Your task to perform on an android device: Open display settings Image 0: 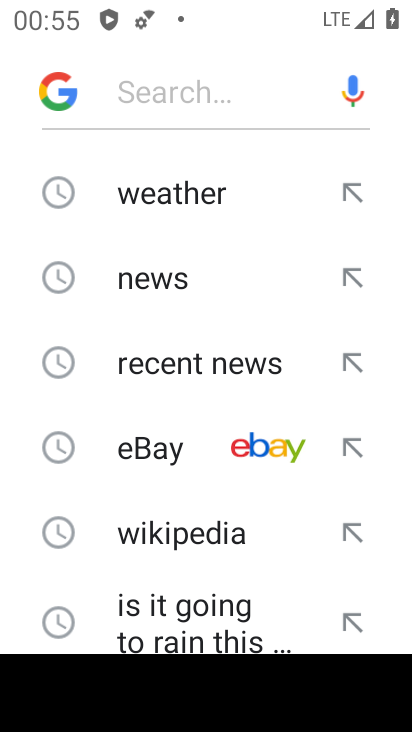
Step 0: press home button
Your task to perform on an android device: Open display settings Image 1: 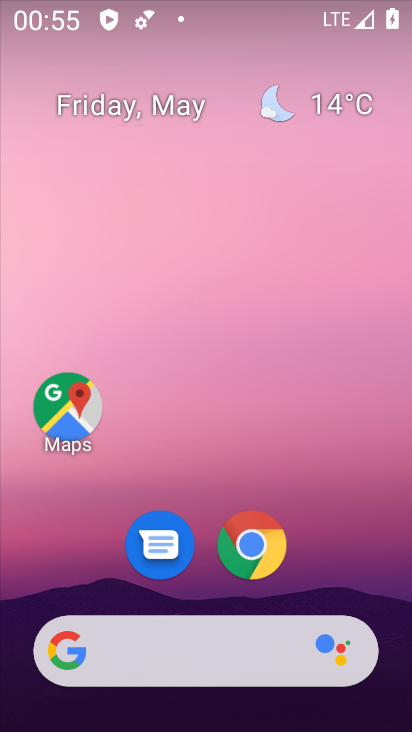
Step 1: drag from (293, 583) to (269, 157)
Your task to perform on an android device: Open display settings Image 2: 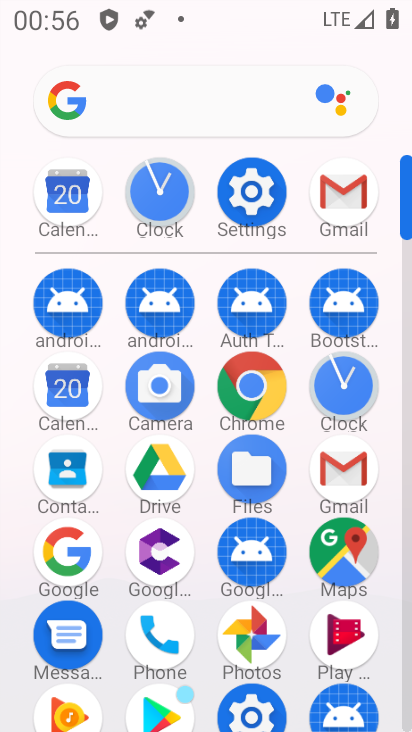
Step 2: drag from (283, 611) to (260, 291)
Your task to perform on an android device: Open display settings Image 3: 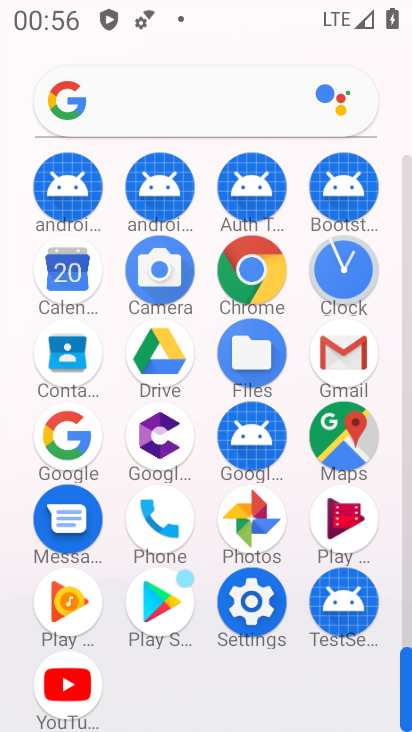
Step 3: drag from (288, 545) to (287, 358)
Your task to perform on an android device: Open display settings Image 4: 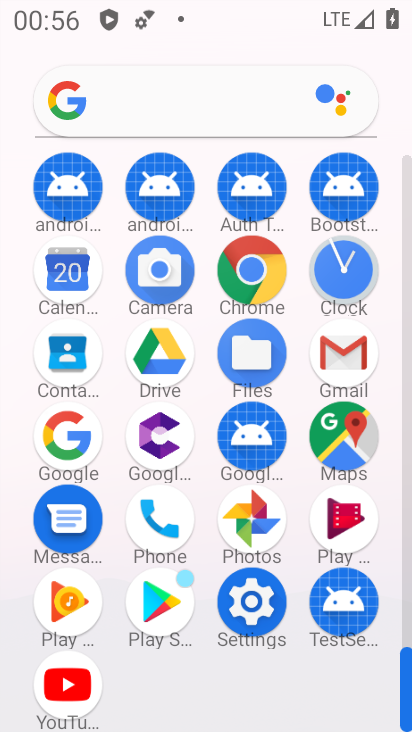
Step 4: click (238, 611)
Your task to perform on an android device: Open display settings Image 5: 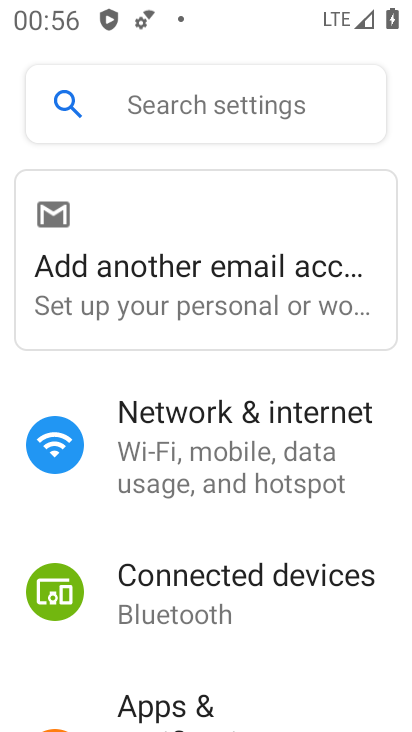
Step 5: drag from (237, 395) to (238, 331)
Your task to perform on an android device: Open display settings Image 6: 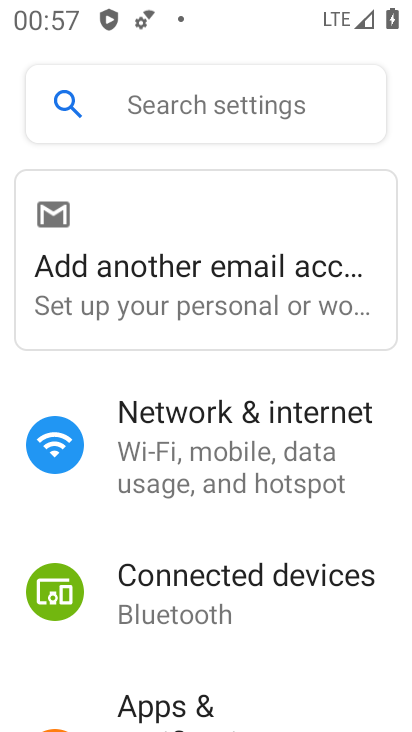
Step 6: drag from (251, 618) to (234, 321)
Your task to perform on an android device: Open display settings Image 7: 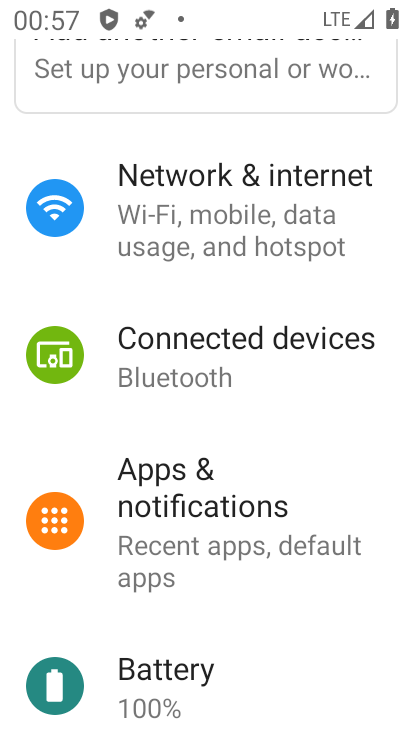
Step 7: drag from (222, 567) to (222, 323)
Your task to perform on an android device: Open display settings Image 8: 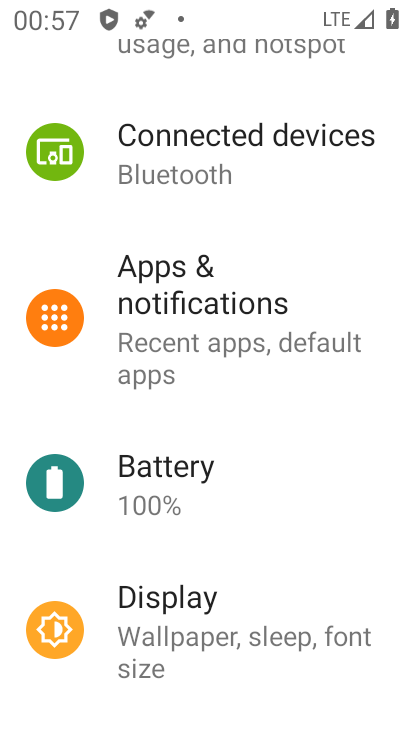
Step 8: drag from (201, 614) to (208, 416)
Your task to perform on an android device: Open display settings Image 9: 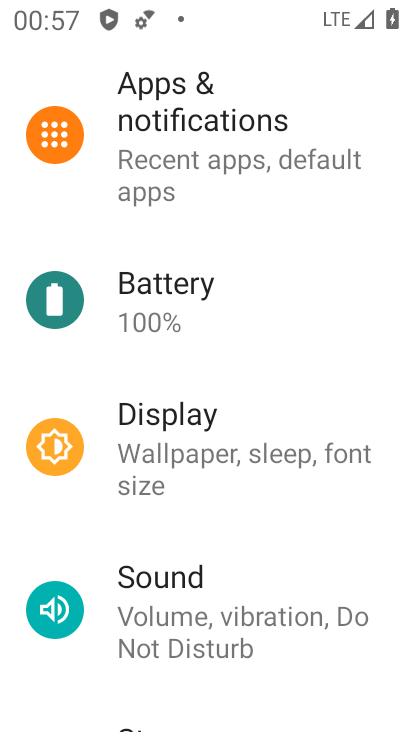
Step 9: drag from (189, 660) to (250, 393)
Your task to perform on an android device: Open display settings Image 10: 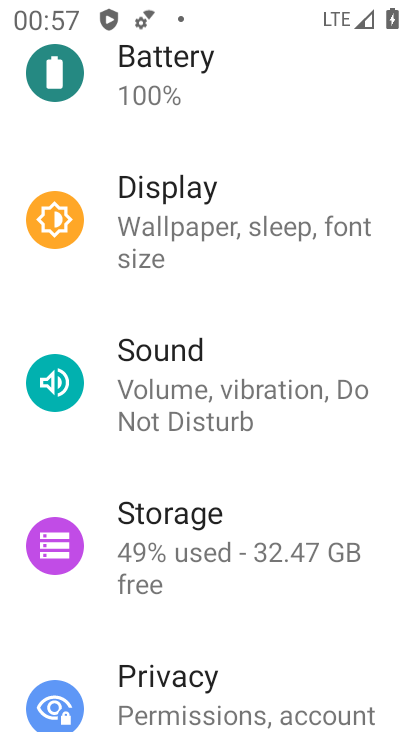
Step 10: click (206, 205)
Your task to perform on an android device: Open display settings Image 11: 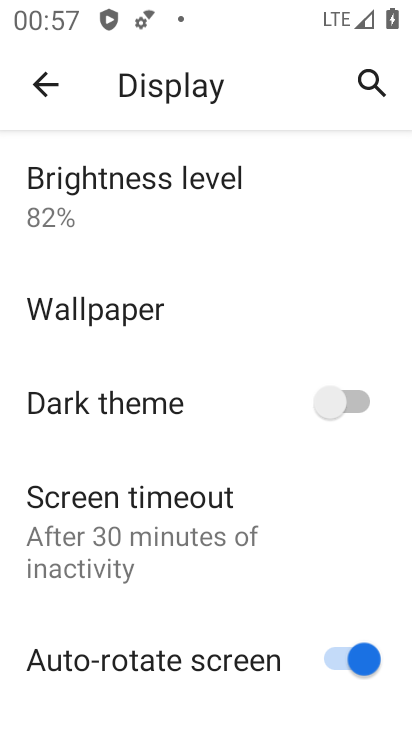
Step 11: task complete